Your task to perform on an android device: turn notification dots on Image 0: 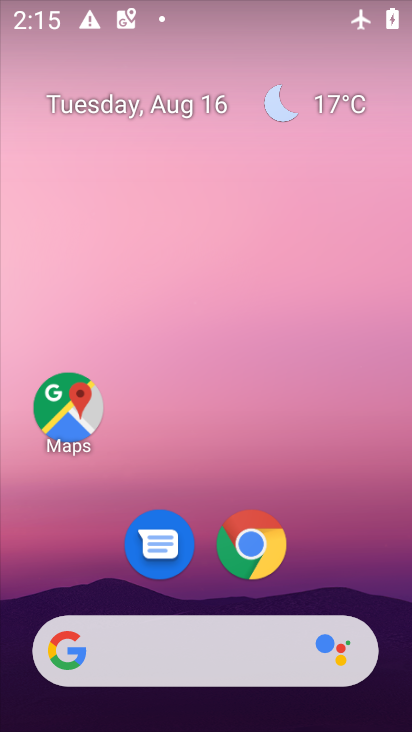
Step 0: drag from (195, 672) to (269, 133)
Your task to perform on an android device: turn notification dots on Image 1: 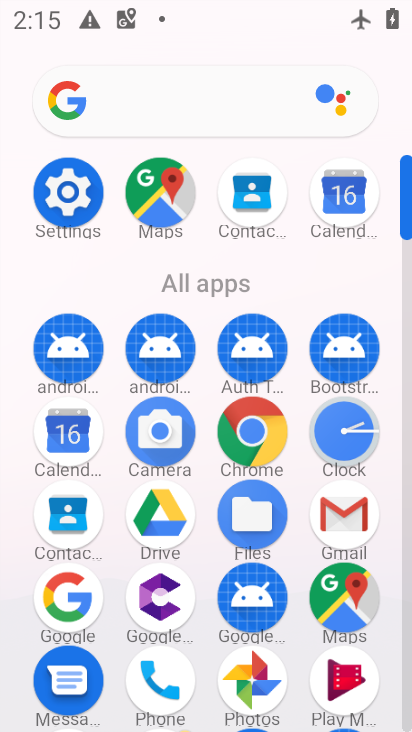
Step 1: click (65, 191)
Your task to perform on an android device: turn notification dots on Image 2: 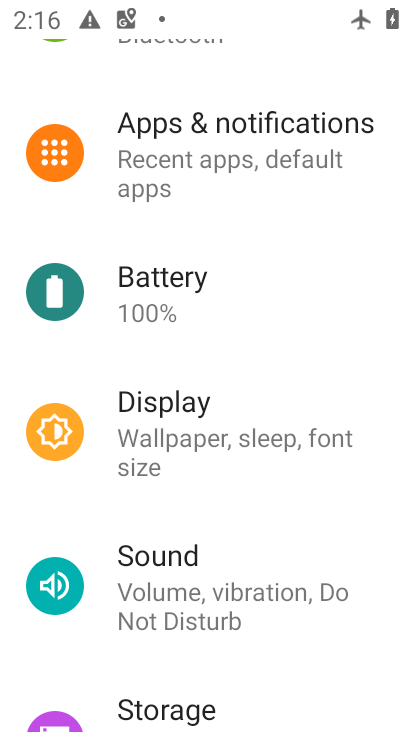
Step 2: click (185, 123)
Your task to perform on an android device: turn notification dots on Image 3: 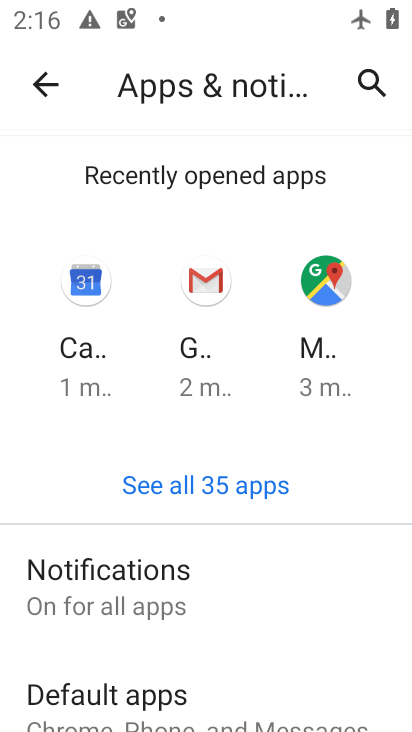
Step 3: click (136, 568)
Your task to perform on an android device: turn notification dots on Image 4: 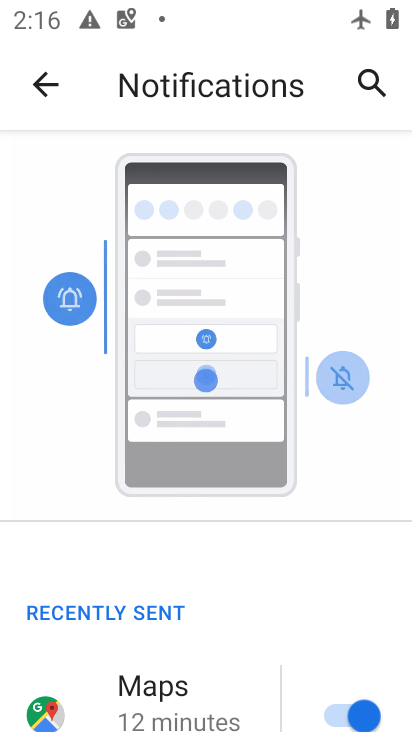
Step 4: drag from (205, 651) to (264, 354)
Your task to perform on an android device: turn notification dots on Image 5: 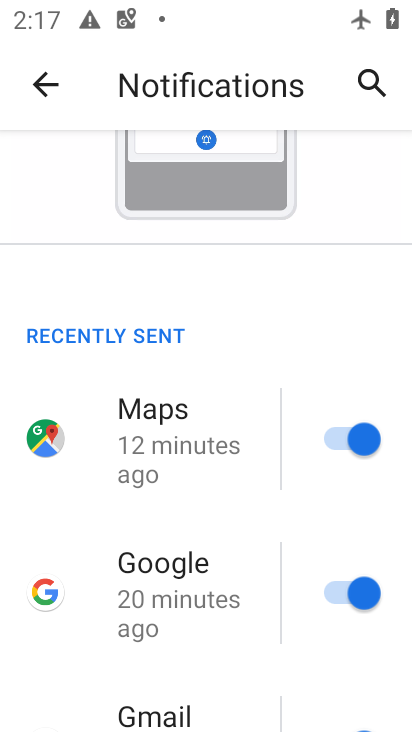
Step 5: drag from (161, 524) to (202, 359)
Your task to perform on an android device: turn notification dots on Image 6: 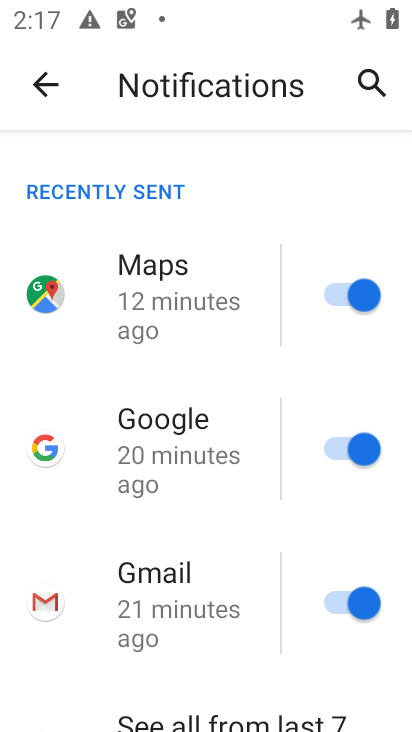
Step 6: drag from (187, 530) to (209, 316)
Your task to perform on an android device: turn notification dots on Image 7: 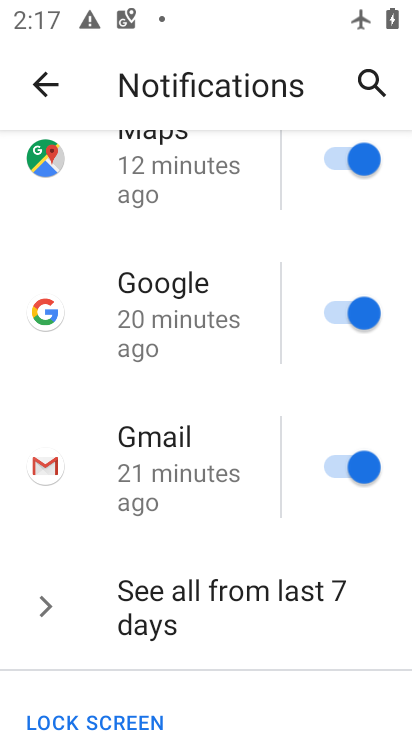
Step 7: drag from (164, 533) to (218, 373)
Your task to perform on an android device: turn notification dots on Image 8: 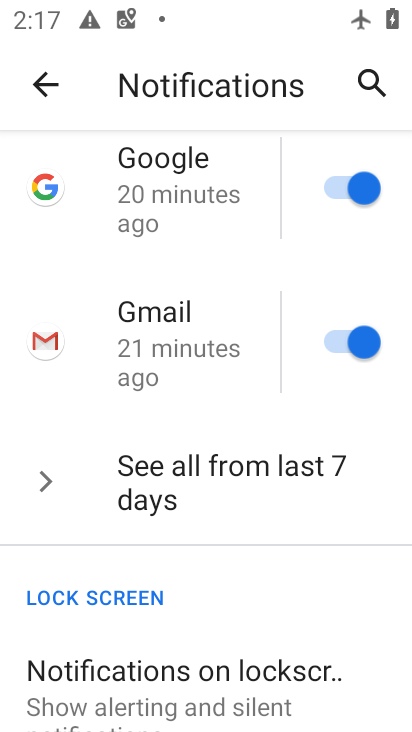
Step 8: drag from (176, 628) to (270, 414)
Your task to perform on an android device: turn notification dots on Image 9: 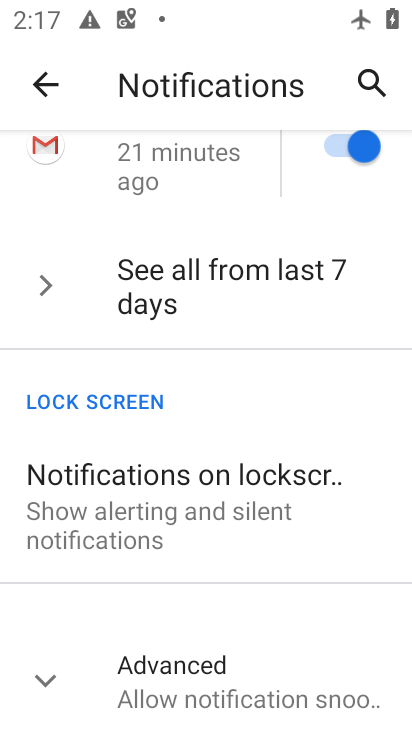
Step 9: click (177, 678)
Your task to perform on an android device: turn notification dots on Image 10: 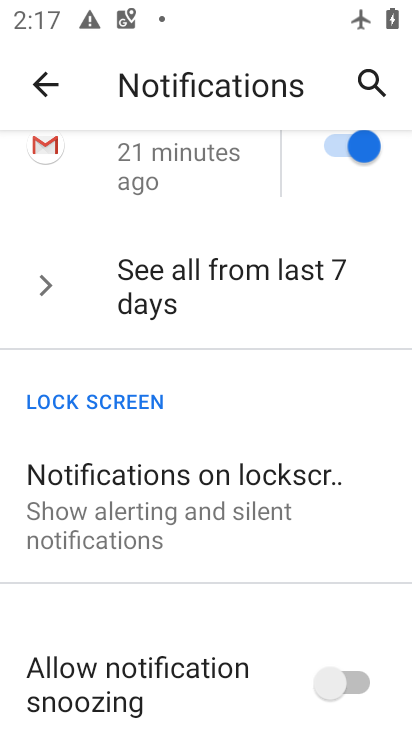
Step 10: task complete